Your task to perform on an android device: turn off location Image 0: 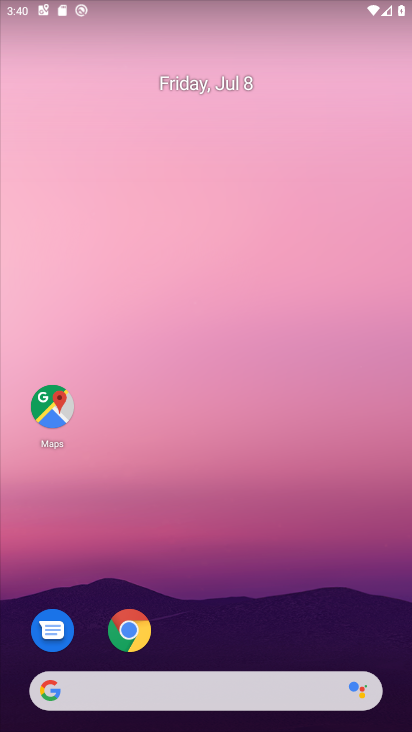
Step 0: drag from (272, 629) to (263, 126)
Your task to perform on an android device: turn off location Image 1: 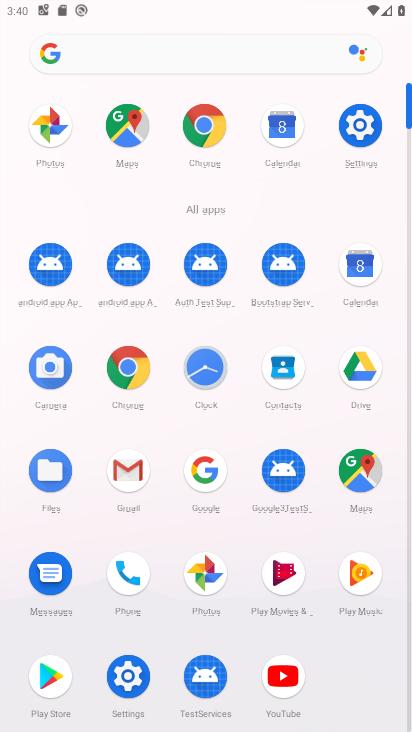
Step 1: click (366, 125)
Your task to perform on an android device: turn off location Image 2: 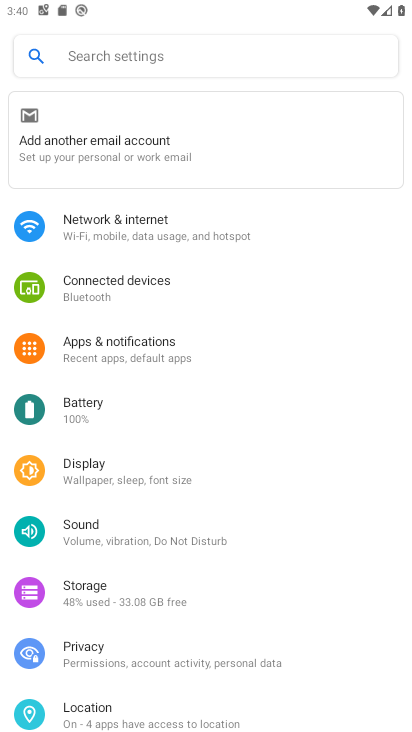
Step 2: click (102, 706)
Your task to perform on an android device: turn off location Image 3: 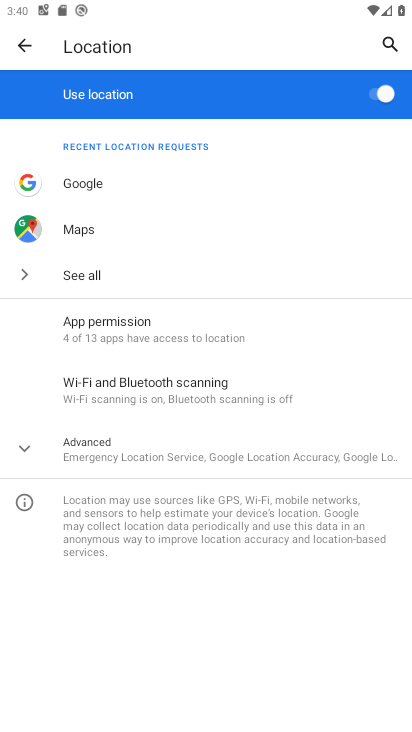
Step 3: click (373, 97)
Your task to perform on an android device: turn off location Image 4: 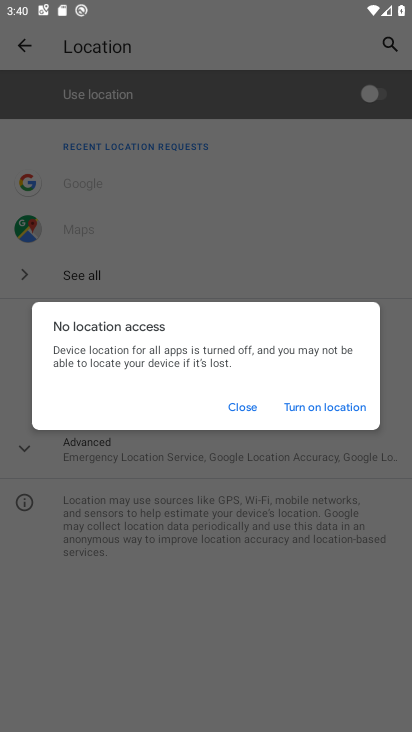
Step 4: task complete